Your task to perform on an android device: star an email in the gmail app Image 0: 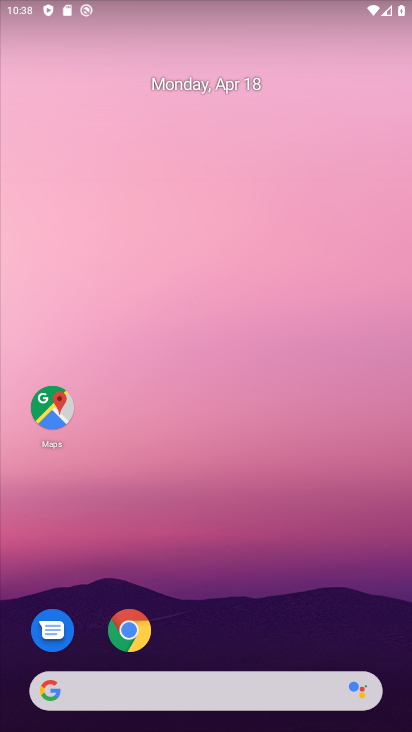
Step 0: drag from (338, 514) to (380, 522)
Your task to perform on an android device: star an email in the gmail app Image 1: 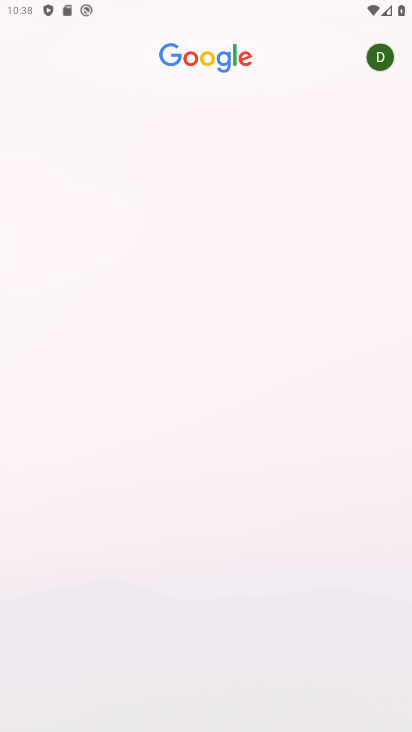
Step 1: drag from (351, 511) to (17, 450)
Your task to perform on an android device: star an email in the gmail app Image 2: 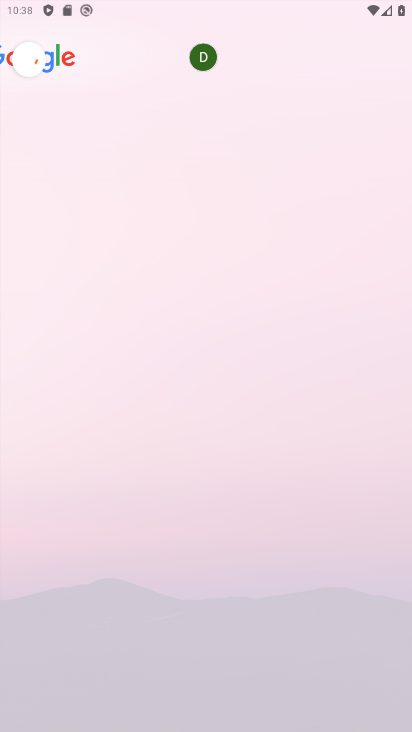
Step 2: drag from (23, 570) to (0, 69)
Your task to perform on an android device: star an email in the gmail app Image 3: 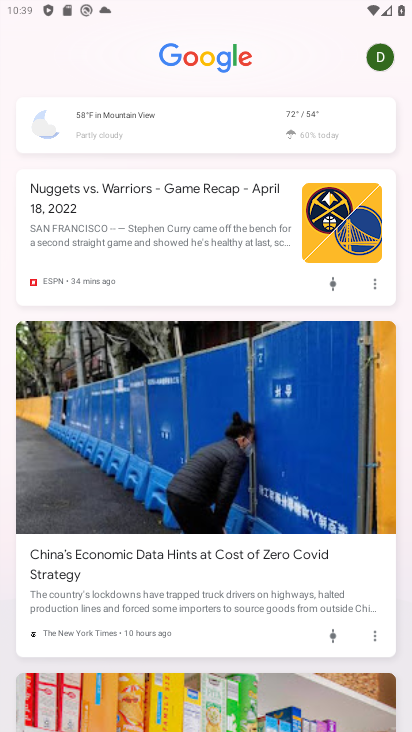
Step 3: press home button
Your task to perform on an android device: star an email in the gmail app Image 4: 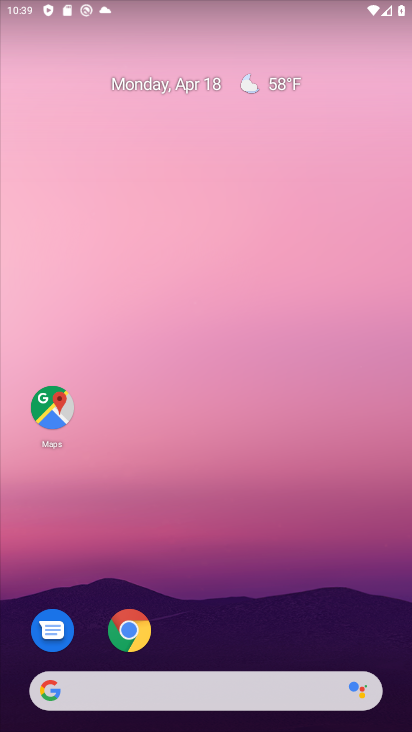
Step 4: drag from (200, 643) to (244, 74)
Your task to perform on an android device: star an email in the gmail app Image 5: 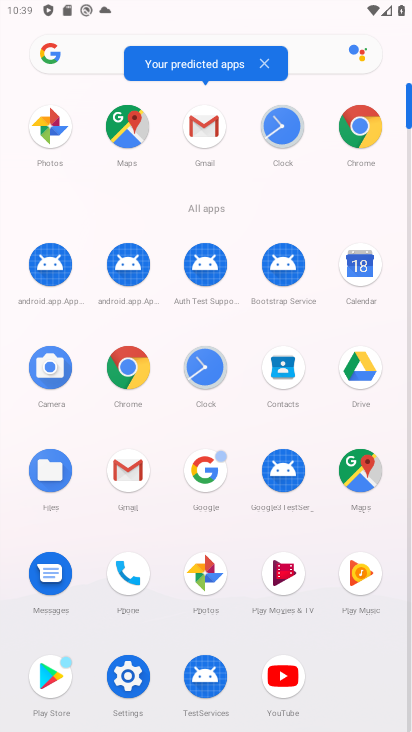
Step 5: drag from (172, 591) to (210, 147)
Your task to perform on an android device: star an email in the gmail app Image 6: 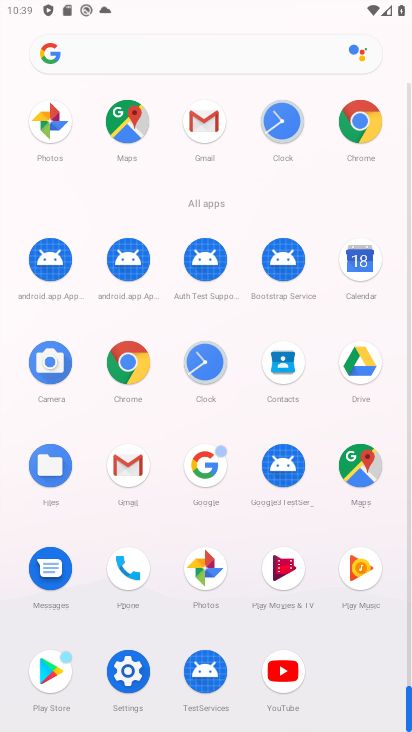
Step 6: drag from (210, 143) to (212, 597)
Your task to perform on an android device: star an email in the gmail app Image 7: 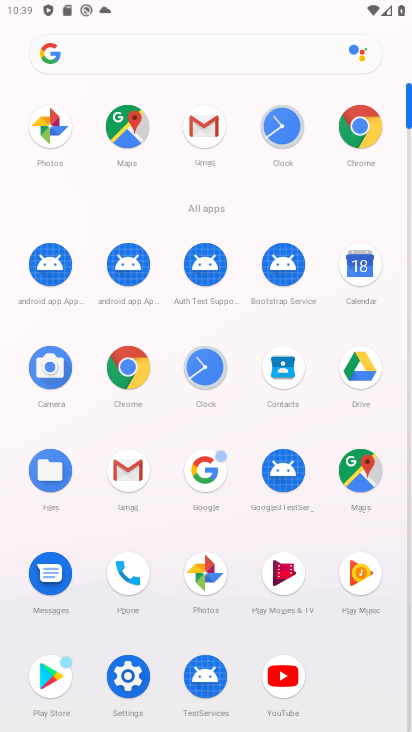
Step 7: click (197, 133)
Your task to perform on an android device: star an email in the gmail app Image 8: 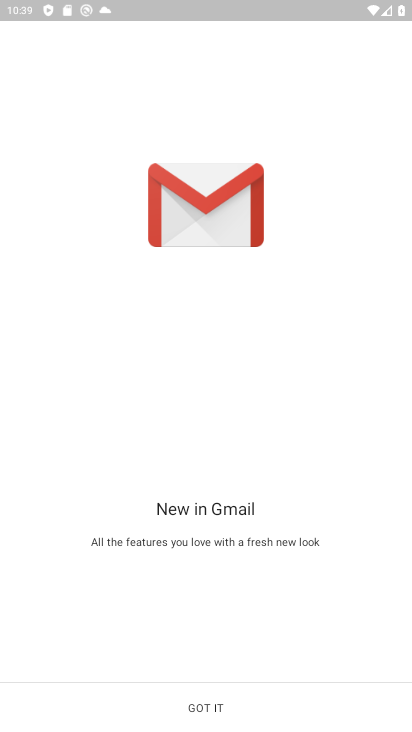
Step 8: click (178, 715)
Your task to perform on an android device: star an email in the gmail app Image 9: 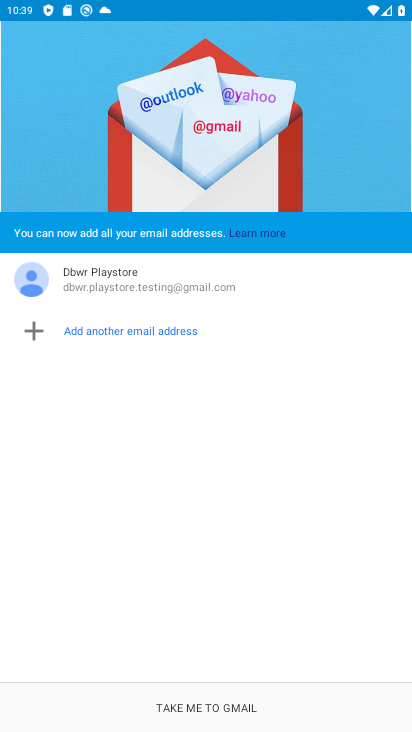
Step 9: click (232, 697)
Your task to perform on an android device: star an email in the gmail app Image 10: 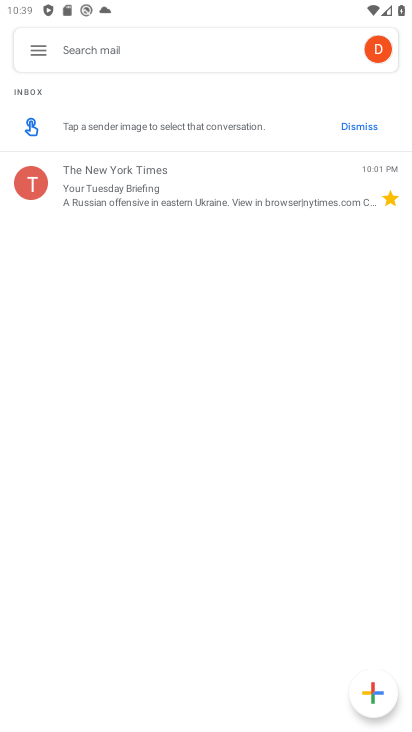
Step 10: click (31, 52)
Your task to perform on an android device: star an email in the gmail app Image 11: 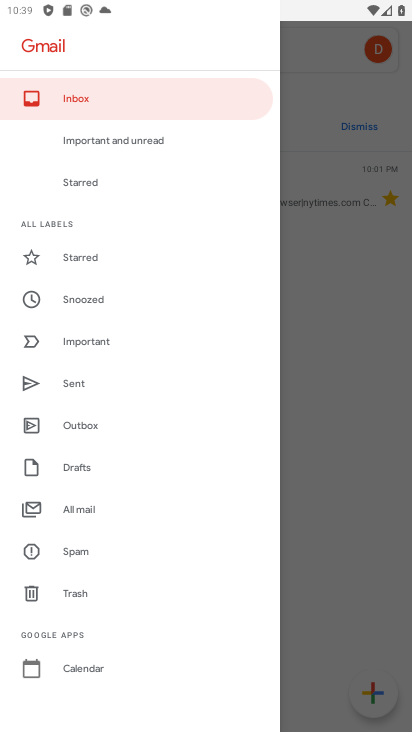
Step 11: click (112, 510)
Your task to perform on an android device: star an email in the gmail app Image 12: 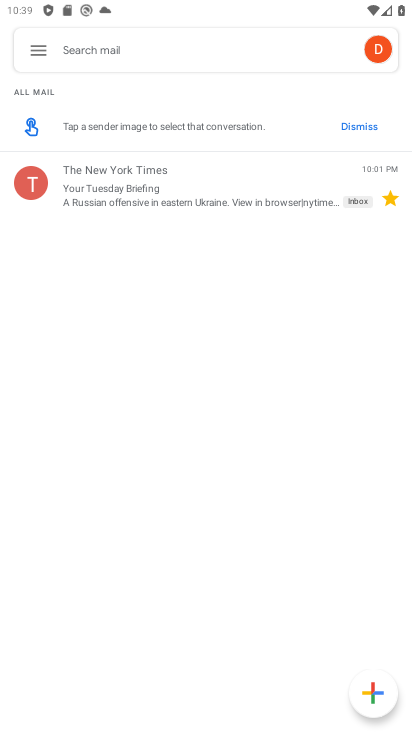
Step 12: click (232, 171)
Your task to perform on an android device: star an email in the gmail app Image 13: 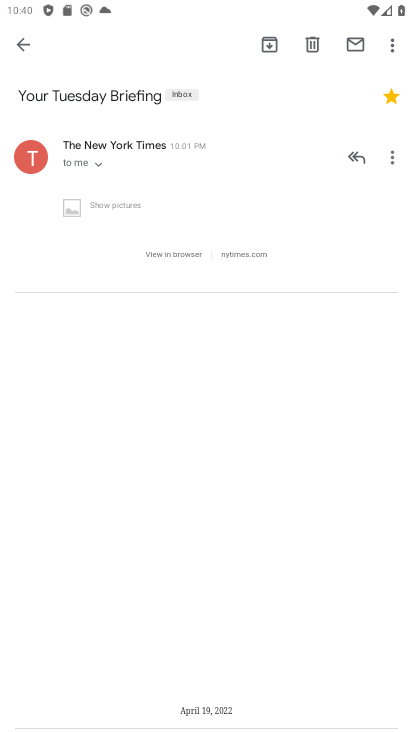
Step 13: task complete